Your task to perform on an android device: Do I have any events this weekend? Image 0: 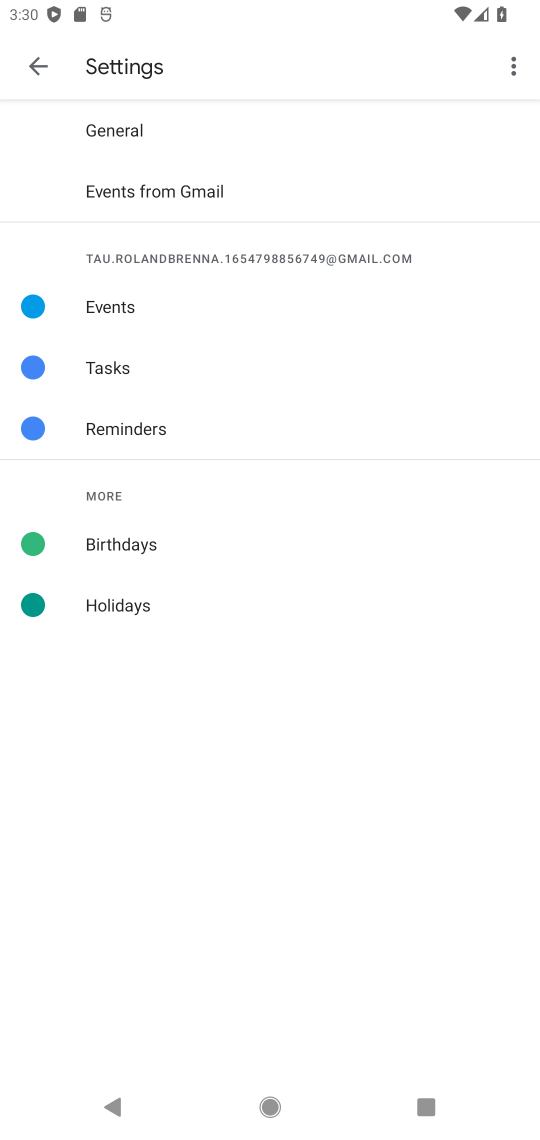
Step 0: press home button
Your task to perform on an android device: Do I have any events this weekend? Image 1: 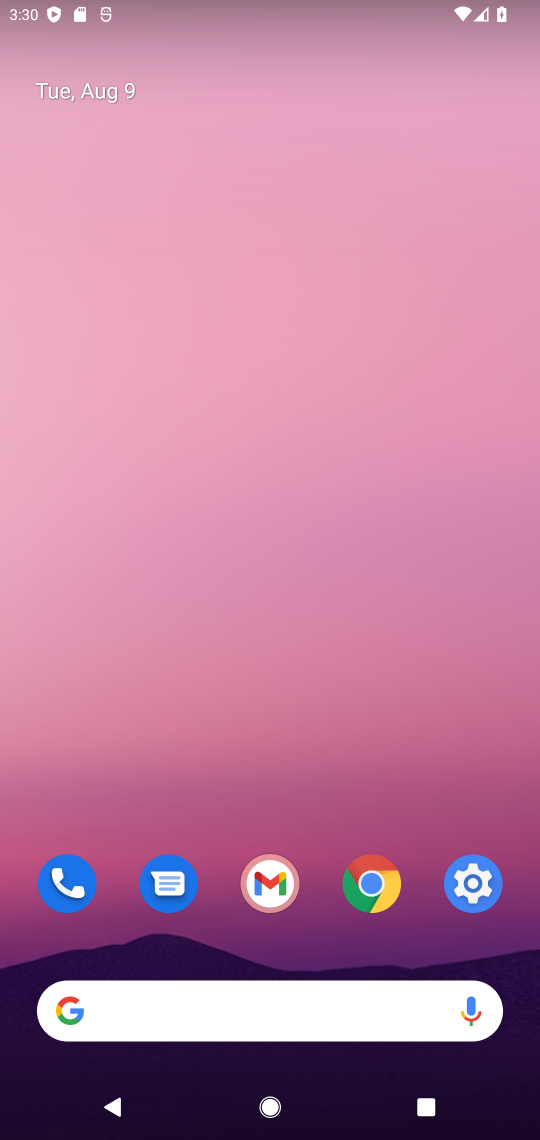
Step 1: drag from (286, 1044) to (355, 386)
Your task to perform on an android device: Do I have any events this weekend? Image 2: 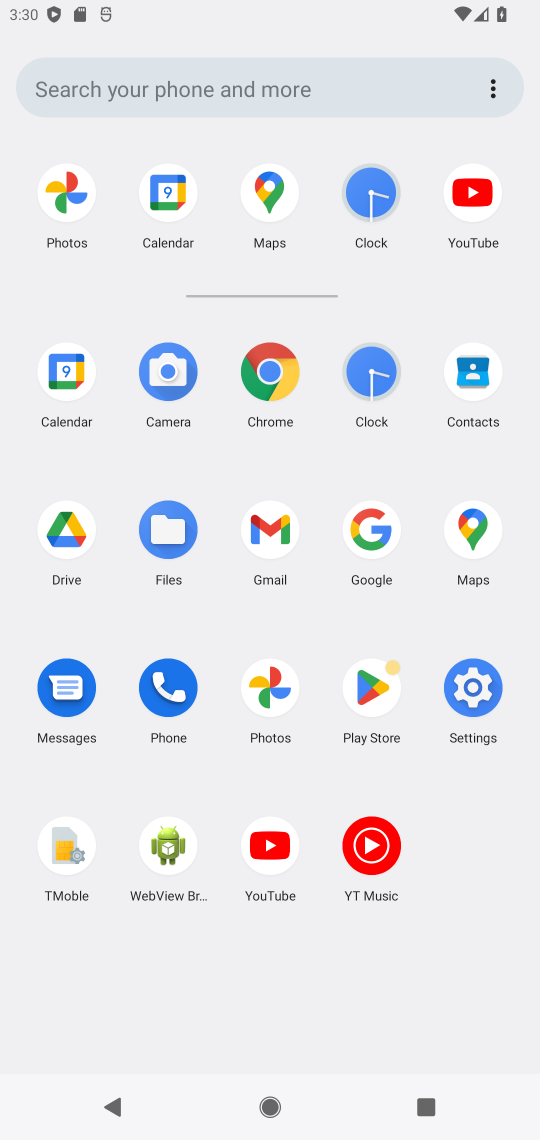
Step 2: click (59, 382)
Your task to perform on an android device: Do I have any events this weekend? Image 3: 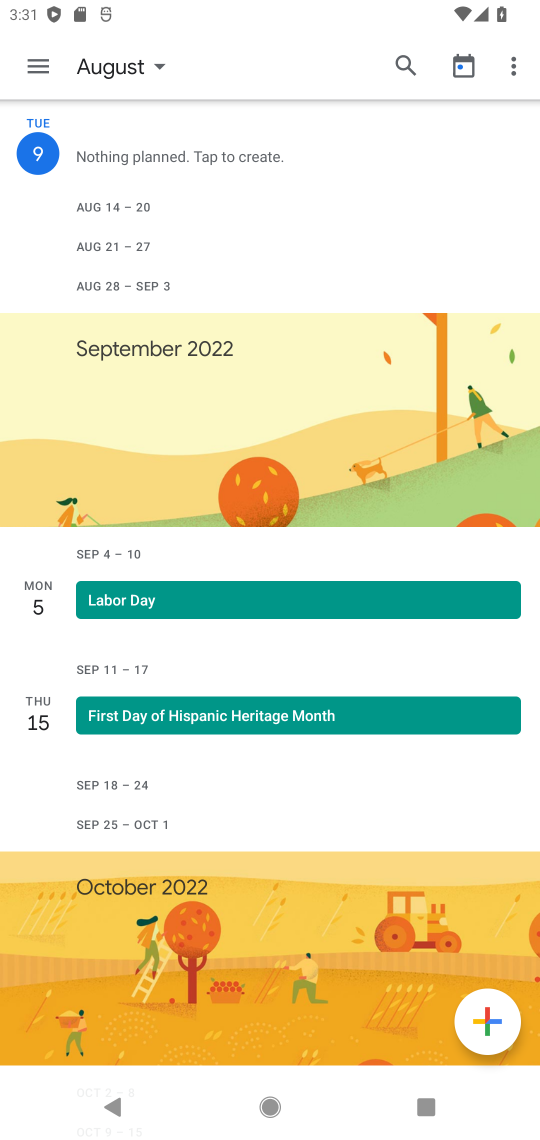
Step 3: task complete